Your task to perform on an android device: toggle improve location accuracy Image 0: 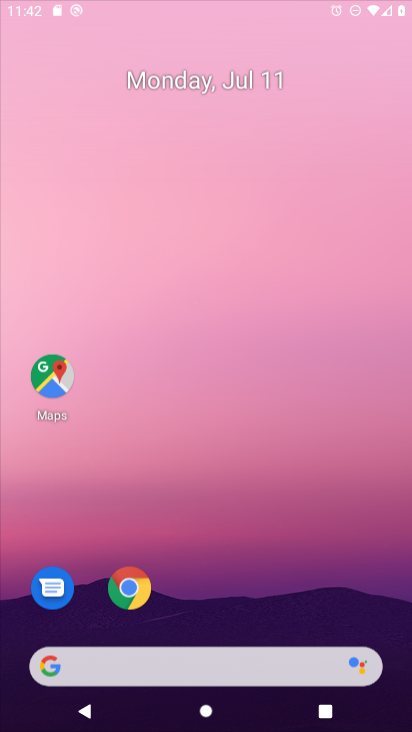
Step 0: press back button
Your task to perform on an android device: toggle improve location accuracy Image 1: 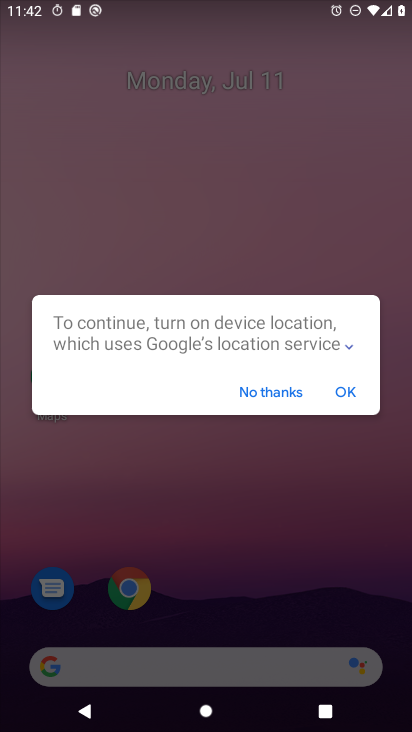
Step 1: press back button
Your task to perform on an android device: toggle improve location accuracy Image 2: 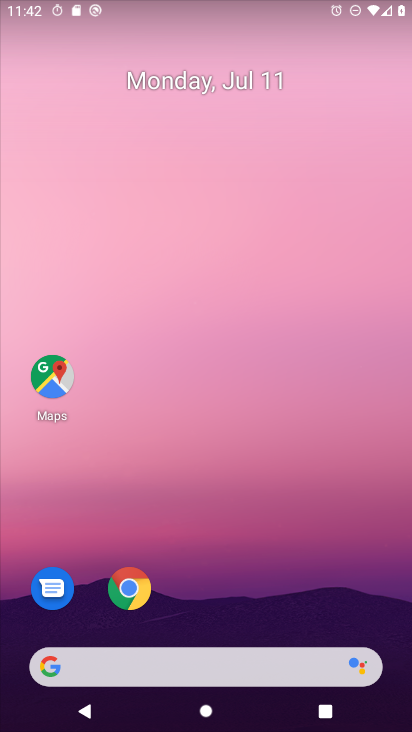
Step 2: drag from (204, 637) to (287, 1)
Your task to perform on an android device: toggle improve location accuracy Image 3: 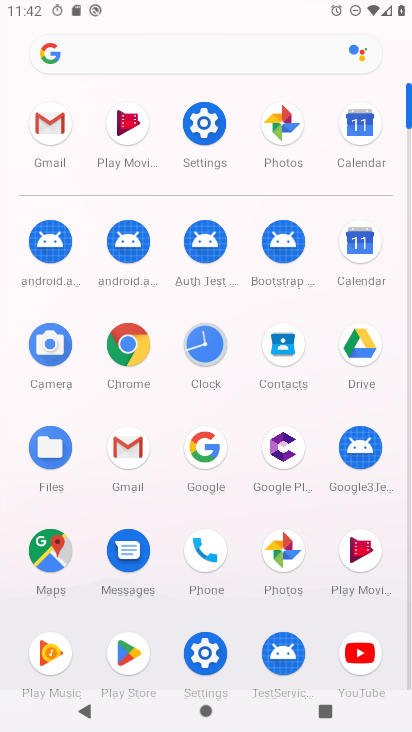
Step 3: click (207, 127)
Your task to perform on an android device: toggle improve location accuracy Image 4: 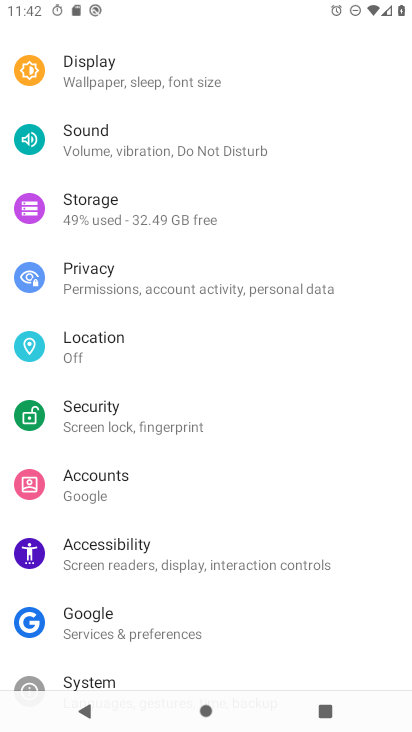
Step 4: click (99, 344)
Your task to perform on an android device: toggle improve location accuracy Image 5: 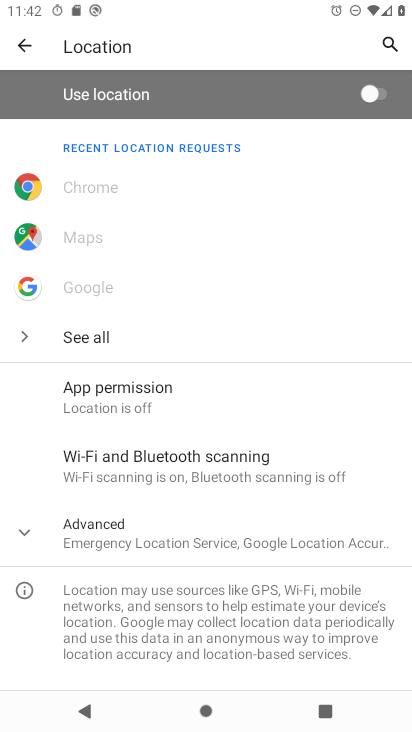
Step 5: click (148, 539)
Your task to perform on an android device: toggle improve location accuracy Image 6: 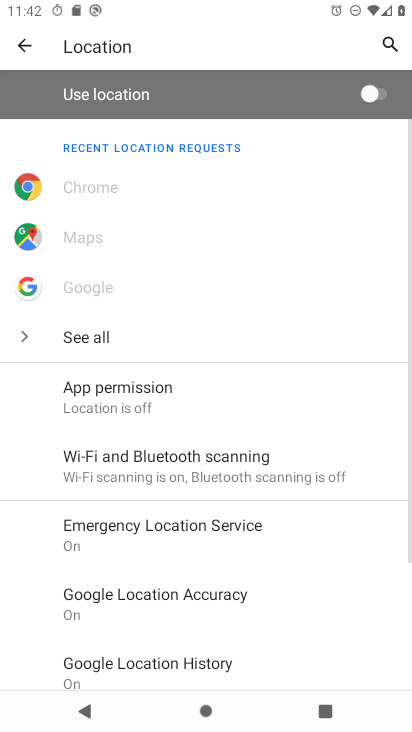
Step 6: click (150, 601)
Your task to perform on an android device: toggle improve location accuracy Image 7: 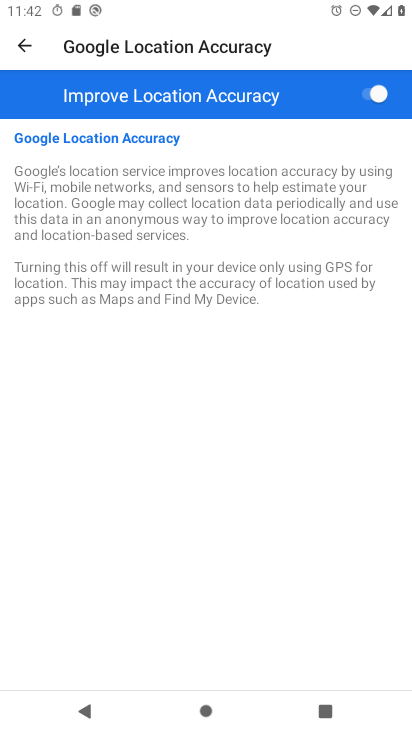
Step 7: click (372, 84)
Your task to perform on an android device: toggle improve location accuracy Image 8: 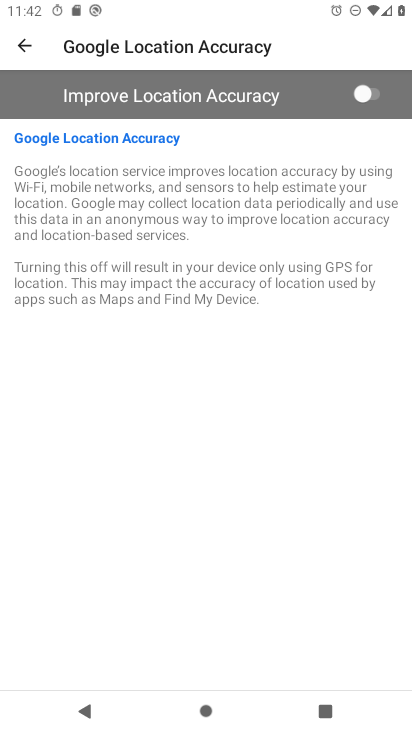
Step 8: task complete